Your task to perform on an android device: Go to Wikipedia Image 0: 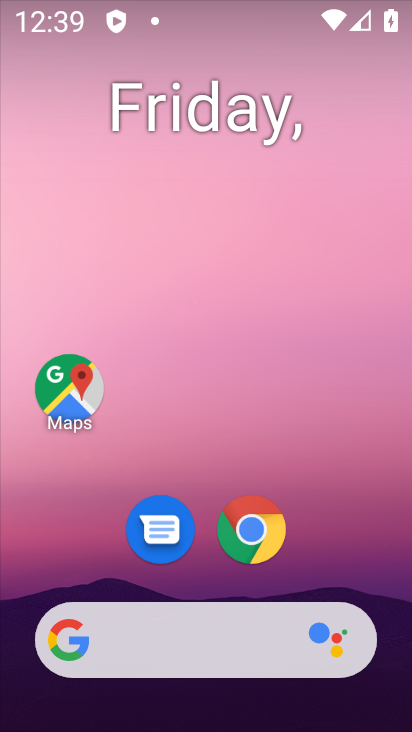
Step 0: drag from (210, 528) to (270, 367)
Your task to perform on an android device: Go to Wikipedia Image 1: 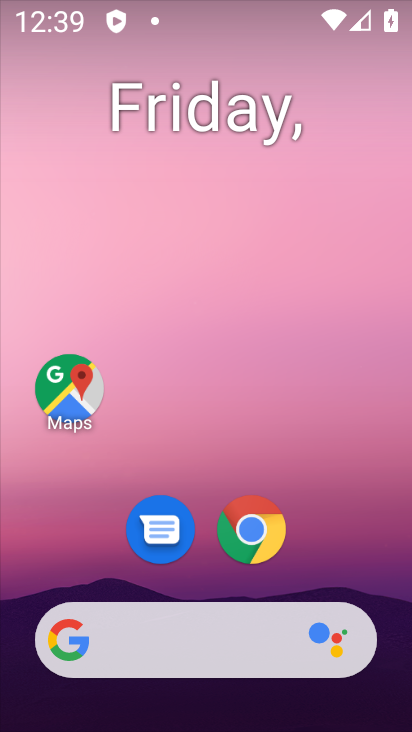
Step 1: drag from (276, 613) to (282, 521)
Your task to perform on an android device: Go to Wikipedia Image 2: 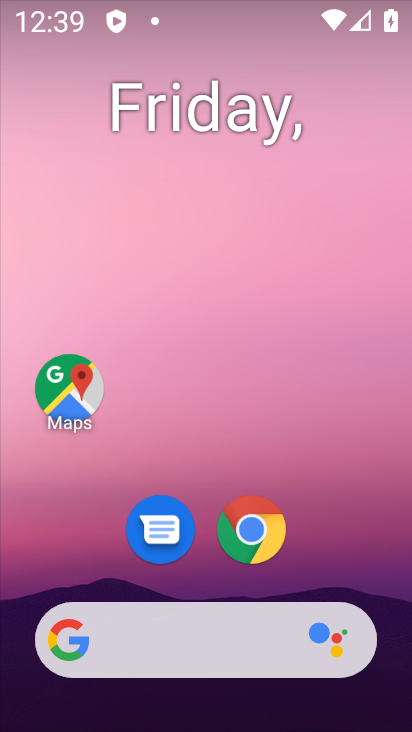
Step 2: drag from (249, 508) to (337, 105)
Your task to perform on an android device: Go to Wikipedia Image 3: 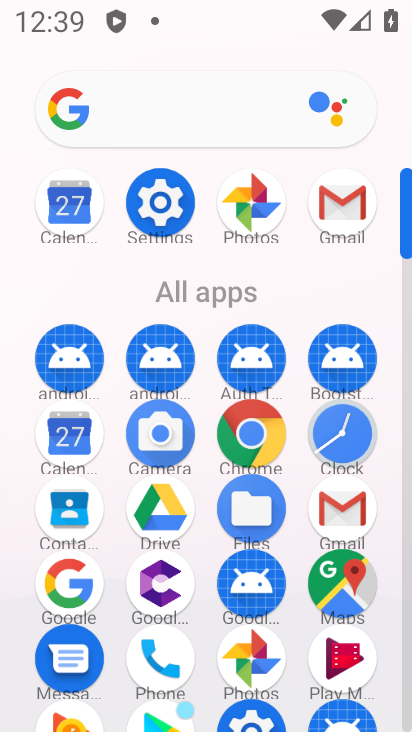
Step 3: click (277, 417)
Your task to perform on an android device: Go to Wikipedia Image 4: 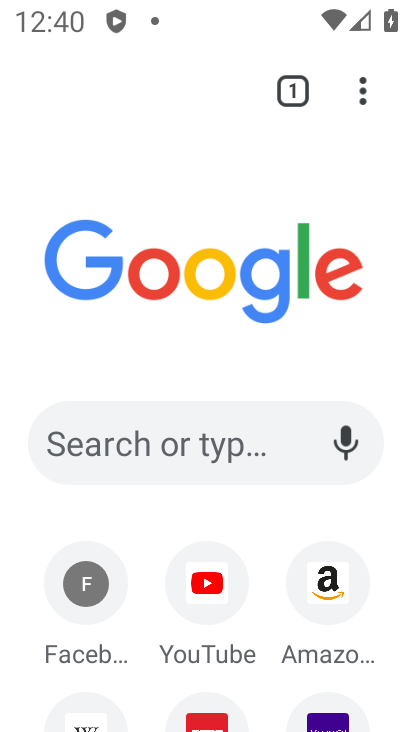
Step 4: drag from (246, 670) to (246, 244)
Your task to perform on an android device: Go to Wikipedia Image 5: 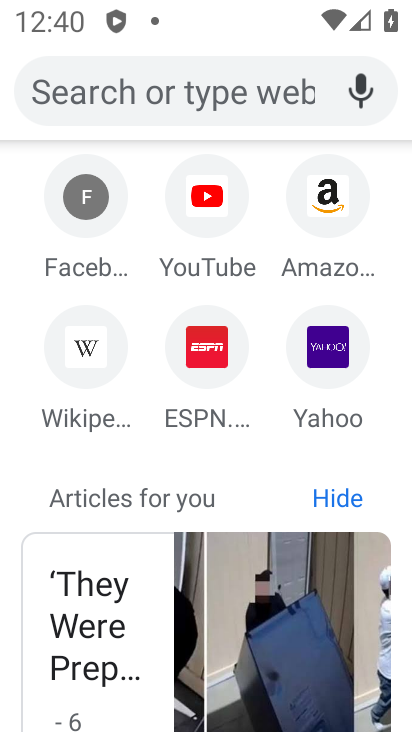
Step 5: click (90, 358)
Your task to perform on an android device: Go to Wikipedia Image 6: 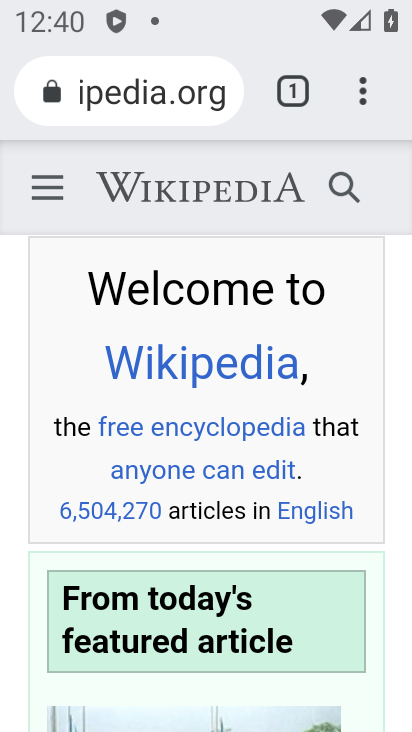
Step 6: task complete